Your task to perform on an android device: Go to accessibility settings Image 0: 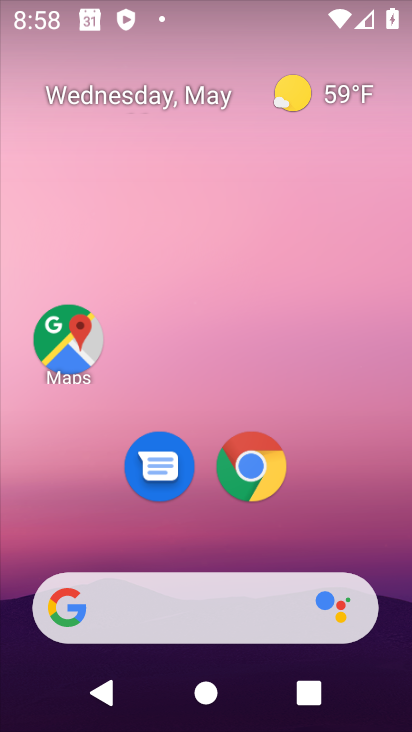
Step 0: drag from (309, 471) to (318, 237)
Your task to perform on an android device: Go to accessibility settings Image 1: 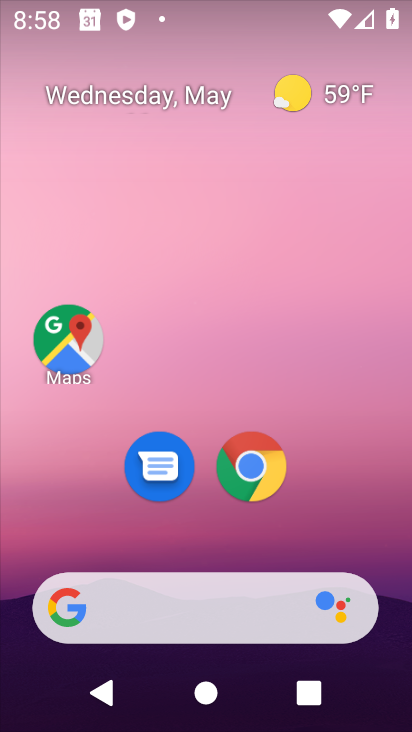
Step 1: drag from (357, 495) to (345, 205)
Your task to perform on an android device: Go to accessibility settings Image 2: 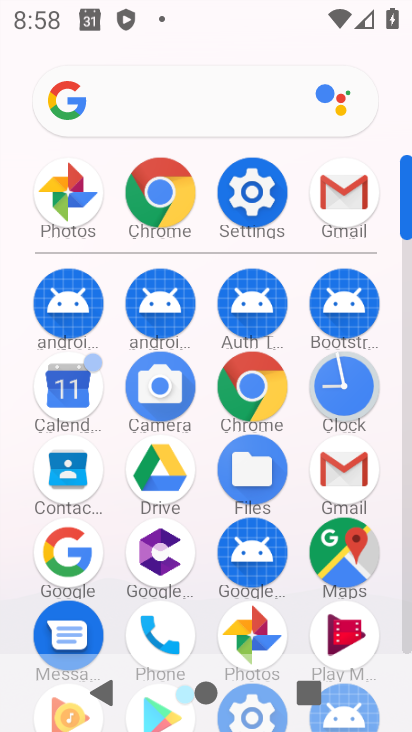
Step 2: click (243, 192)
Your task to perform on an android device: Go to accessibility settings Image 3: 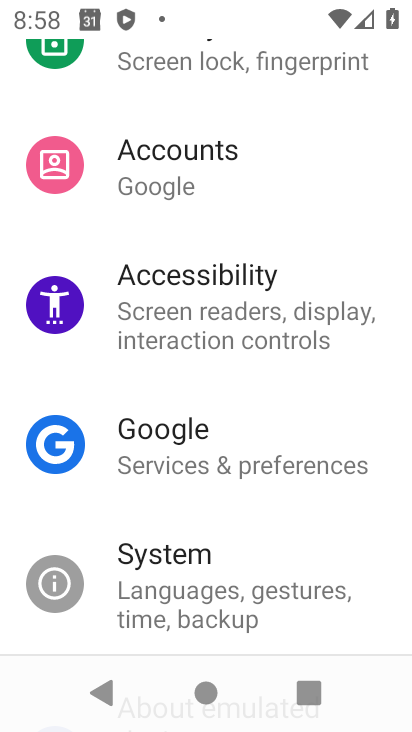
Step 3: click (178, 325)
Your task to perform on an android device: Go to accessibility settings Image 4: 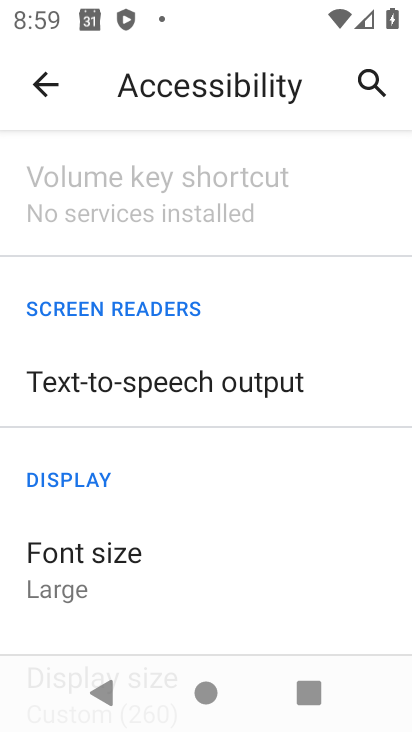
Step 4: task complete